Your task to perform on an android device: change alarm snooze length Image 0: 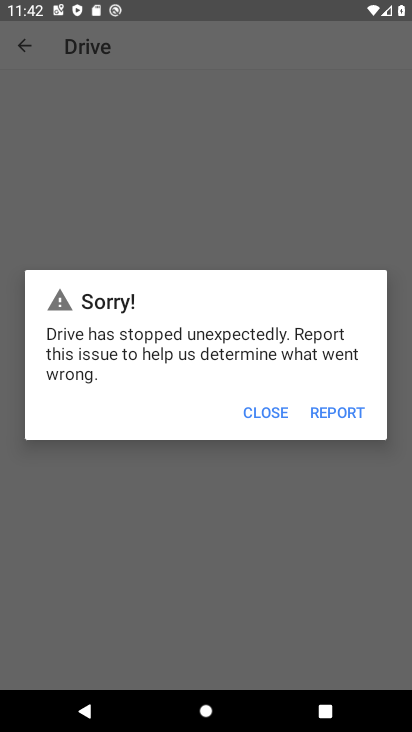
Step 0: press back button
Your task to perform on an android device: change alarm snooze length Image 1: 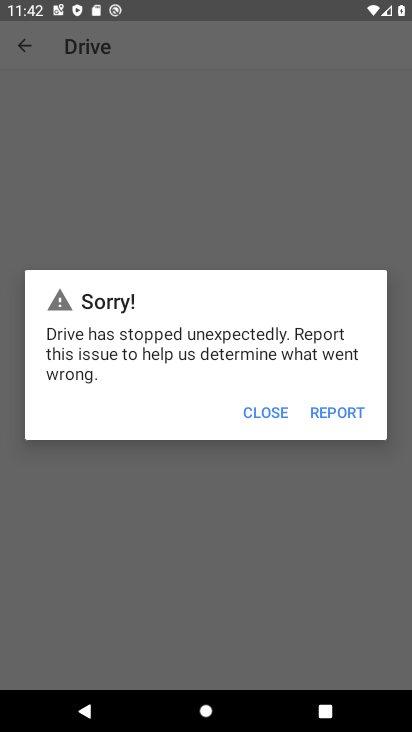
Step 1: press home button
Your task to perform on an android device: change alarm snooze length Image 2: 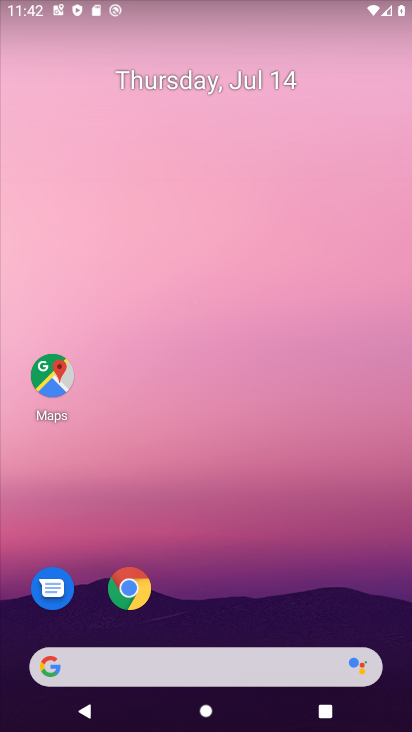
Step 2: drag from (162, 594) to (197, 9)
Your task to perform on an android device: change alarm snooze length Image 3: 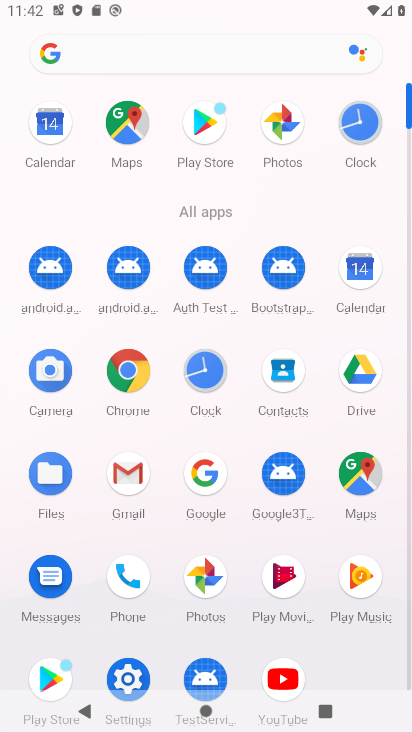
Step 3: click (203, 370)
Your task to perform on an android device: change alarm snooze length Image 4: 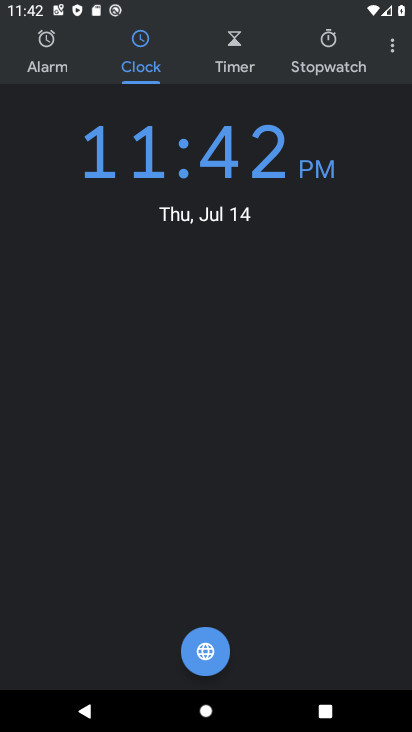
Step 4: click (383, 41)
Your task to perform on an android device: change alarm snooze length Image 5: 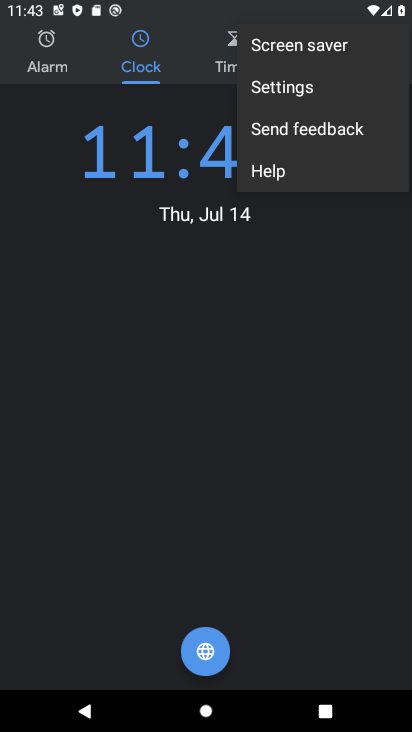
Step 5: click (349, 76)
Your task to perform on an android device: change alarm snooze length Image 6: 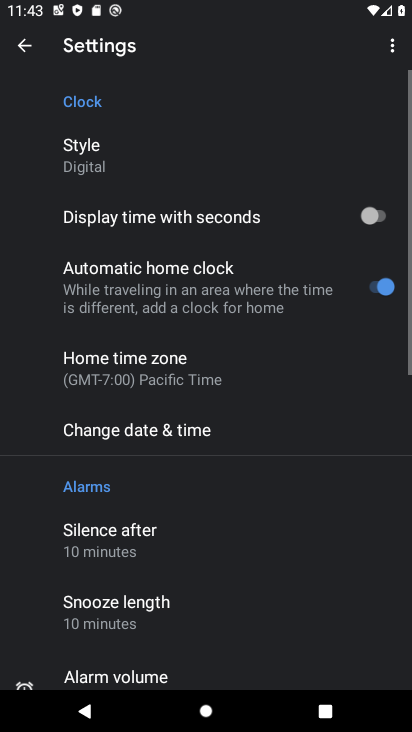
Step 6: click (169, 600)
Your task to perform on an android device: change alarm snooze length Image 7: 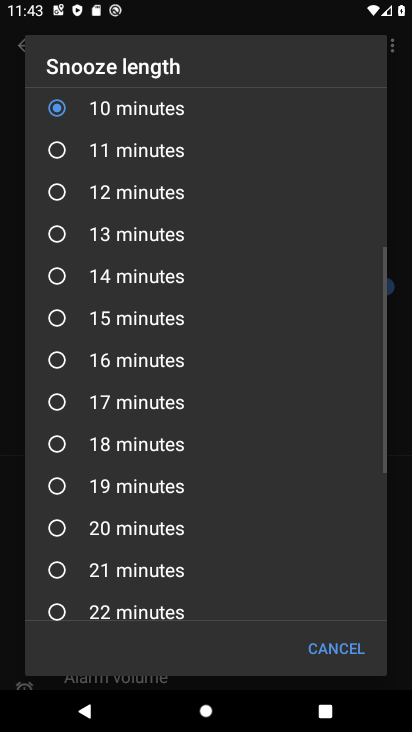
Step 7: click (62, 152)
Your task to perform on an android device: change alarm snooze length Image 8: 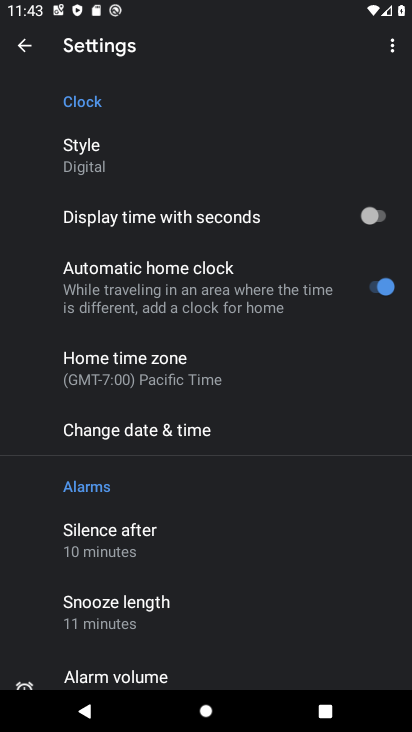
Step 8: task complete